Your task to perform on an android device: turn off picture-in-picture Image 0: 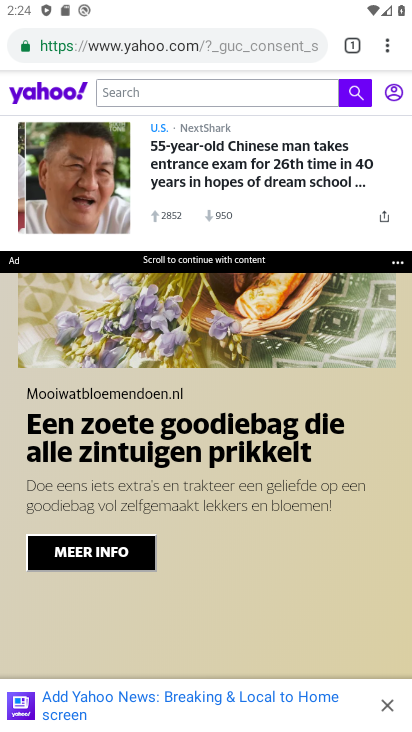
Step 0: press home button
Your task to perform on an android device: turn off picture-in-picture Image 1: 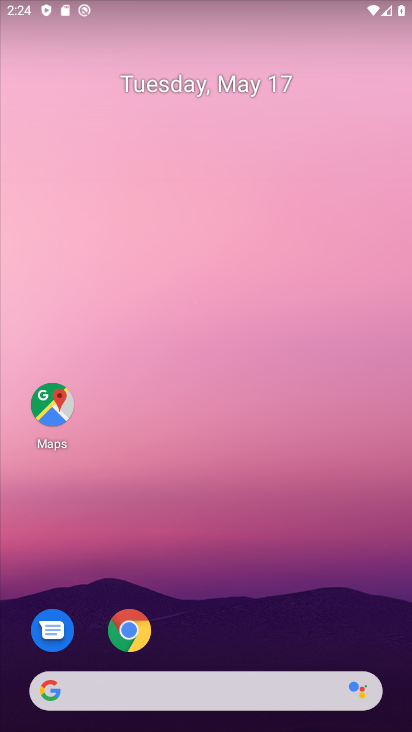
Step 1: click (126, 631)
Your task to perform on an android device: turn off picture-in-picture Image 2: 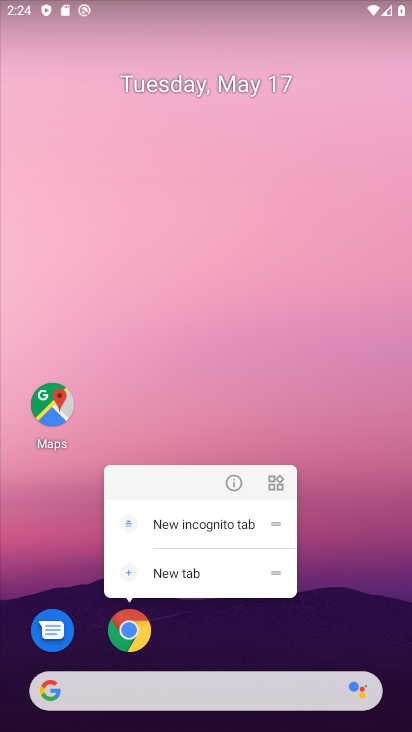
Step 2: click (239, 484)
Your task to perform on an android device: turn off picture-in-picture Image 3: 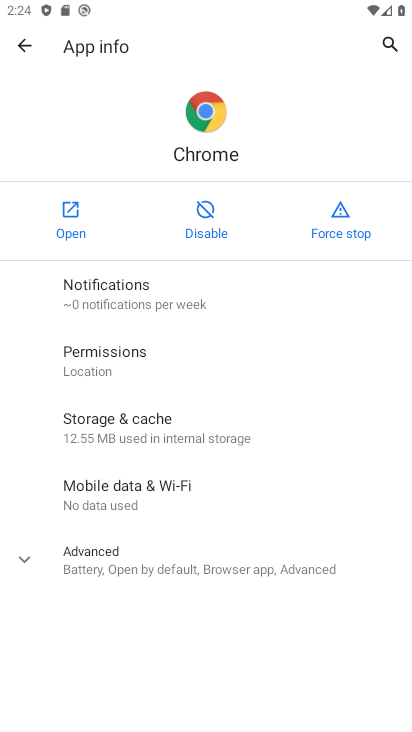
Step 3: click (117, 564)
Your task to perform on an android device: turn off picture-in-picture Image 4: 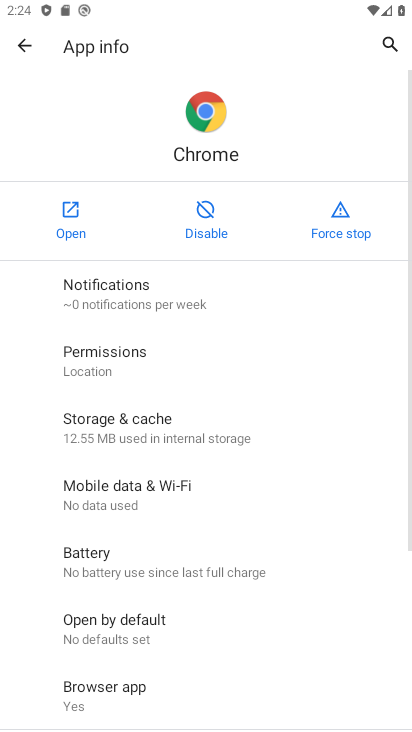
Step 4: drag from (137, 704) to (170, 362)
Your task to perform on an android device: turn off picture-in-picture Image 5: 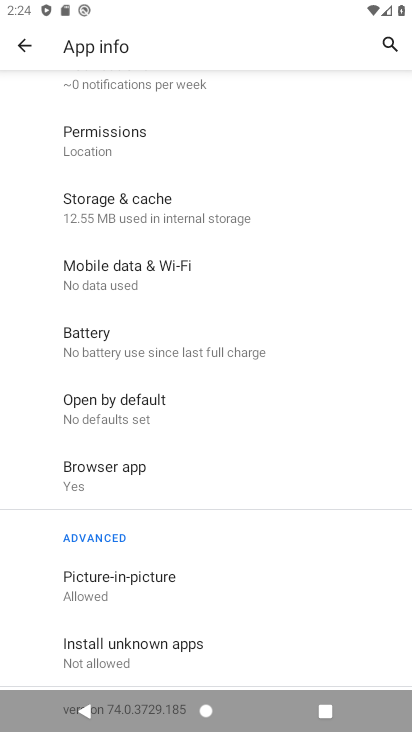
Step 5: click (110, 587)
Your task to perform on an android device: turn off picture-in-picture Image 6: 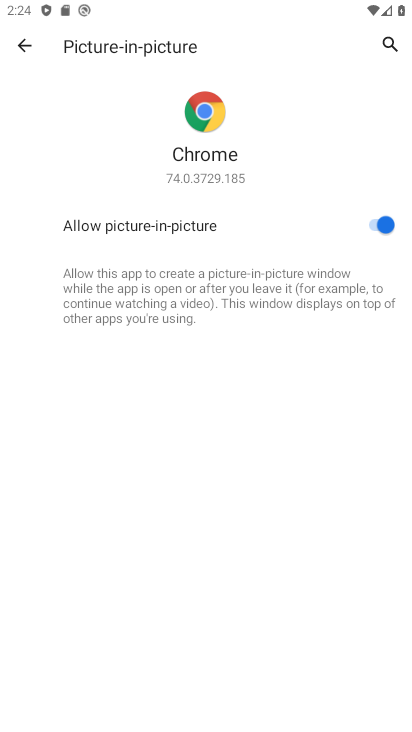
Step 6: click (375, 224)
Your task to perform on an android device: turn off picture-in-picture Image 7: 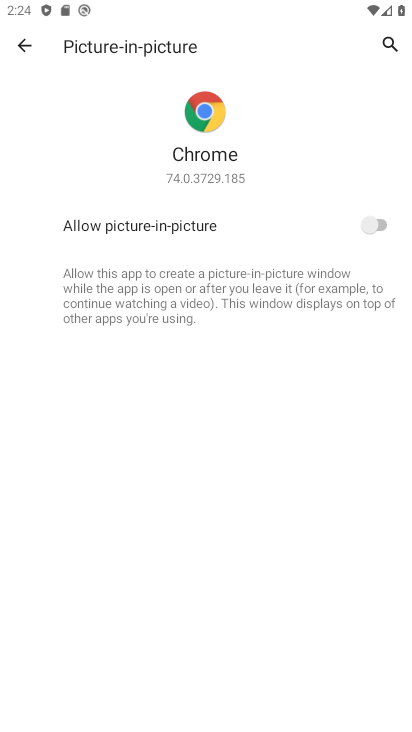
Step 7: task complete